Your task to perform on an android device: delete the emails in spam in the gmail app Image 0: 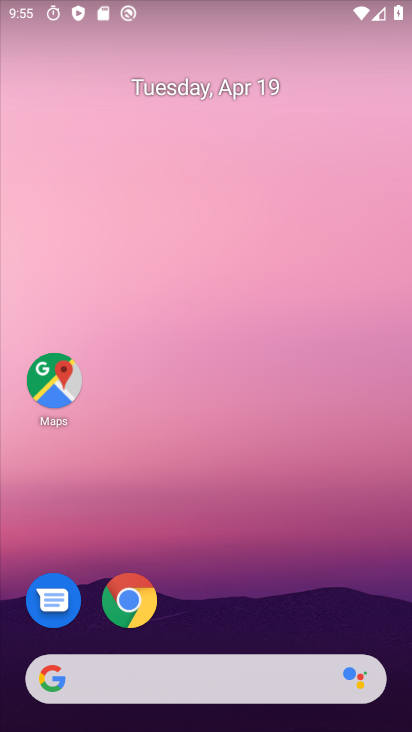
Step 0: drag from (295, 600) to (238, 161)
Your task to perform on an android device: delete the emails in spam in the gmail app Image 1: 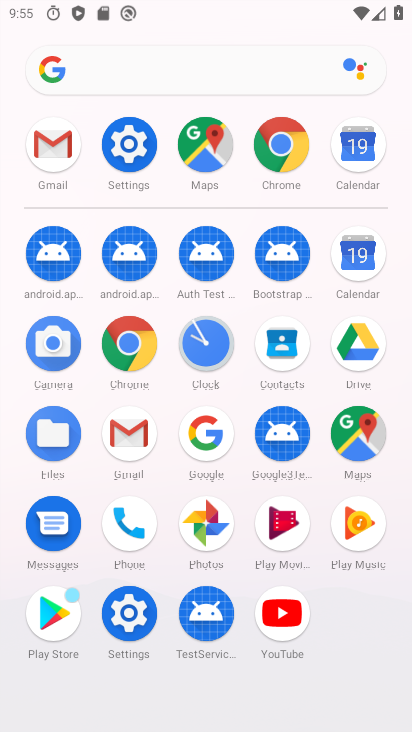
Step 1: click (40, 138)
Your task to perform on an android device: delete the emails in spam in the gmail app Image 2: 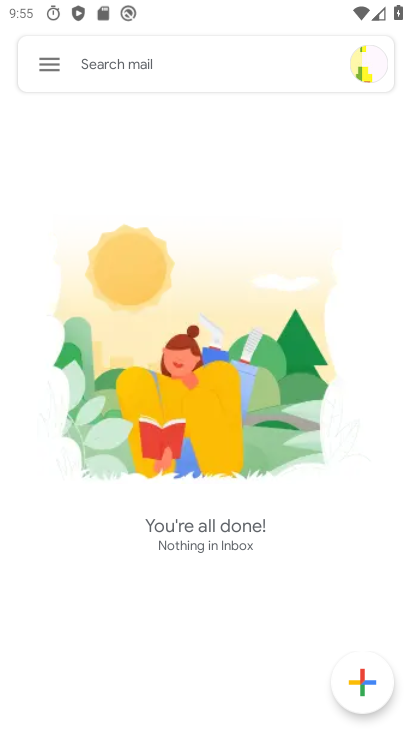
Step 2: click (63, 63)
Your task to perform on an android device: delete the emails in spam in the gmail app Image 3: 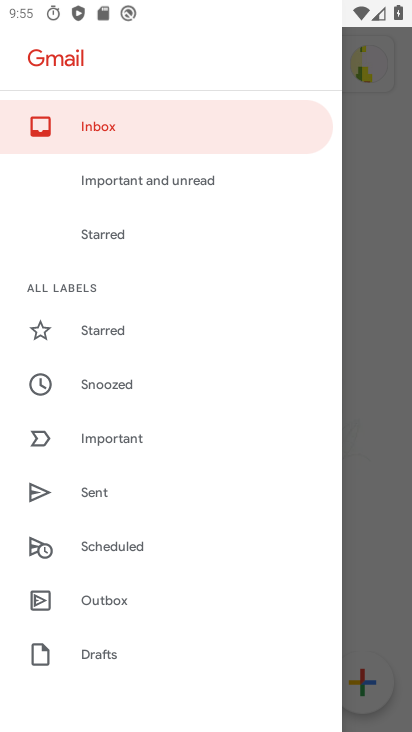
Step 3: drag from (191, 672) to (189, 355)
Your task to perform on an android device: delete the emails in spam in the gmail app Image 4: 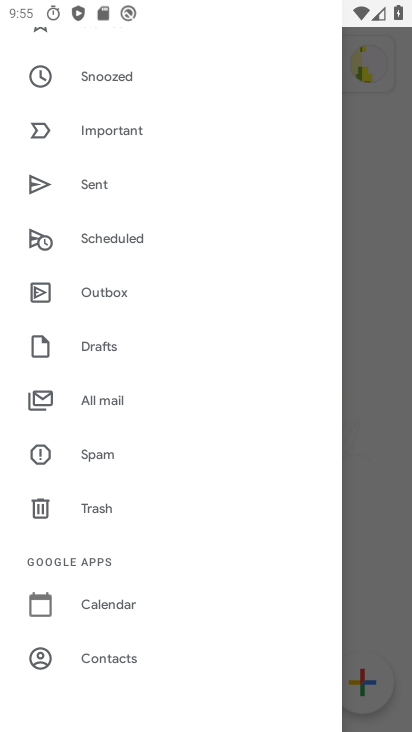
Step 4: click (201, 449)
Your task to perform on an android device: delete the emails in spam in the gmail app Image 5: 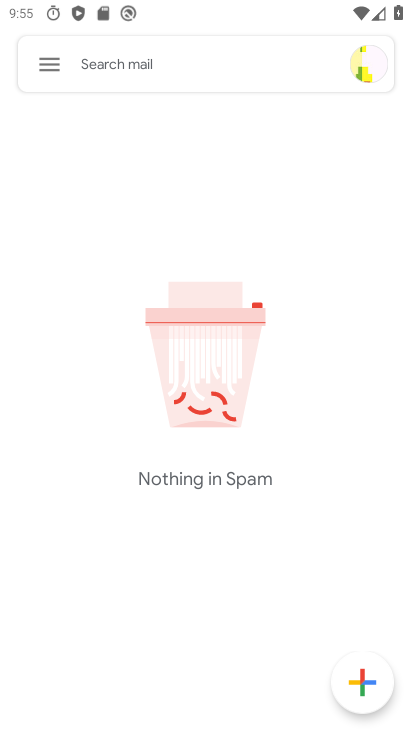
Step 5: task complete